Your task to perform on an android device: turn off location history Image 0: 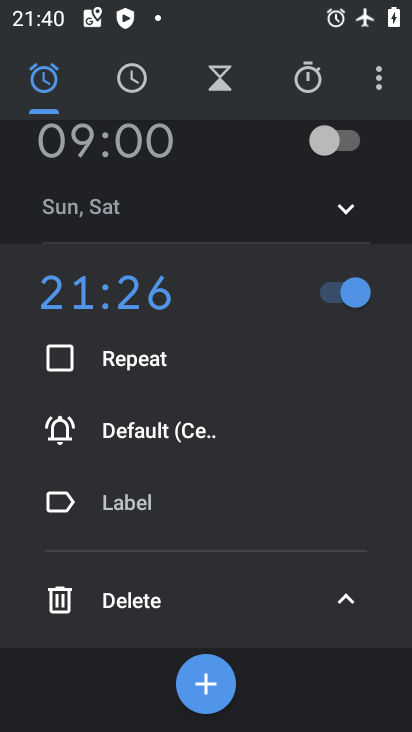
Step 0: press home button
Your task to perform on an android device: turn off location history Image 1: 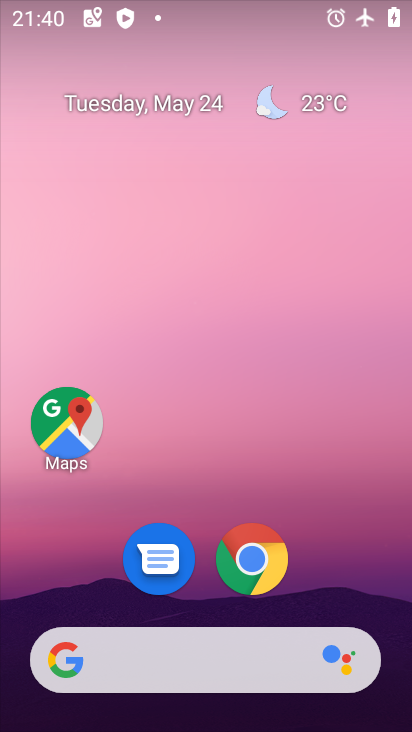
Step 1: drag from (345, 537) to (211, 160)
Your task to perform on an android device: turn off location history Image 2: 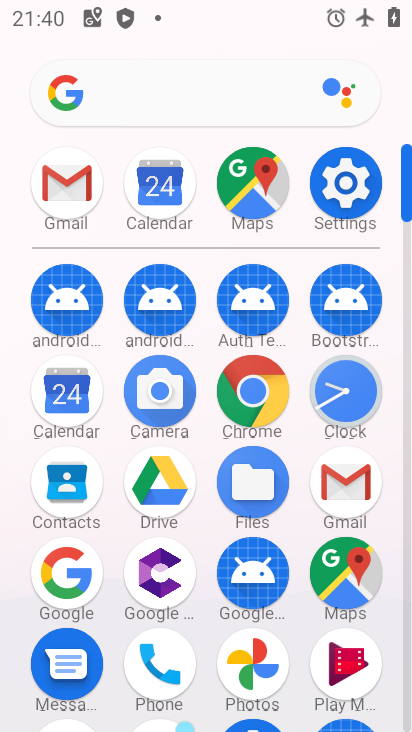
Step 2: click (338, 187)
Your task to perform on an android device: turn off location history Image 3: 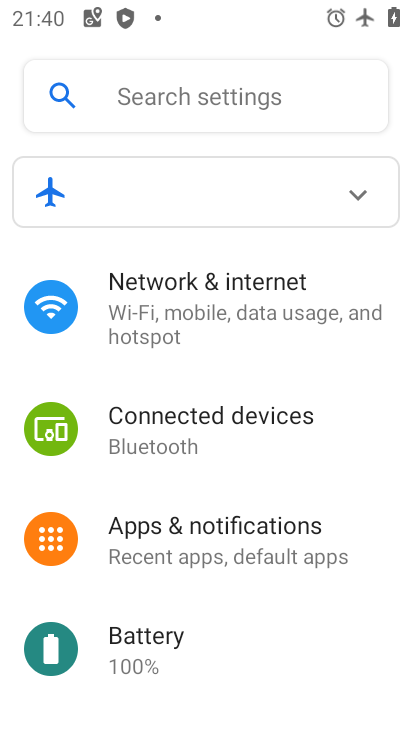
Step 3: drag from (266, 507) to (294, 127)
Your task to perform on an android device: turn off location history Image 4: 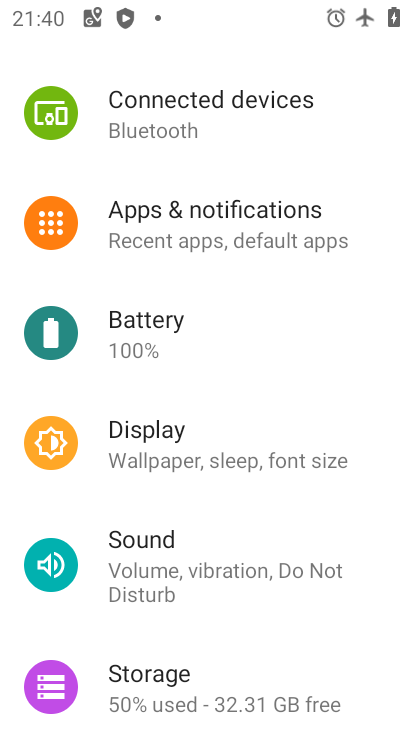
Step 4: drag from (234, 624) to (285, 233)
Your task to perform on an android device: turn off location history Image 5: 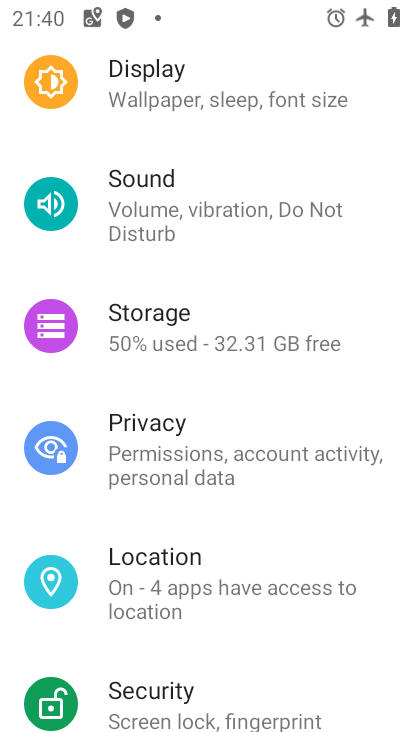
Step 5: drag from (212, 603) to (266, 362)
Your task to perform on an android device: turn off location history Image 6: 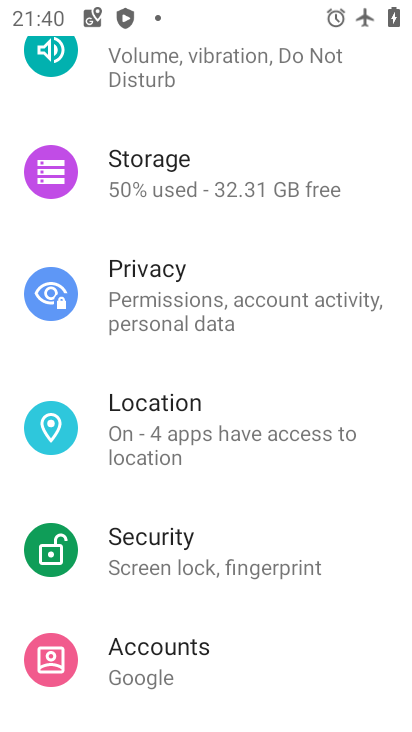
Step 6: click (189, 435)
Your task to perform on an android device: turn off location history Image 7: 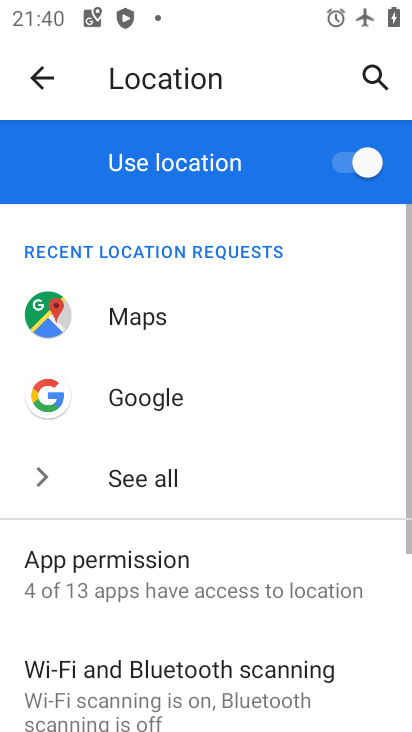
Step 7: drag from (288, 562) to (356, 165)
Your task to perform on an android device: turn off location history Image 8: 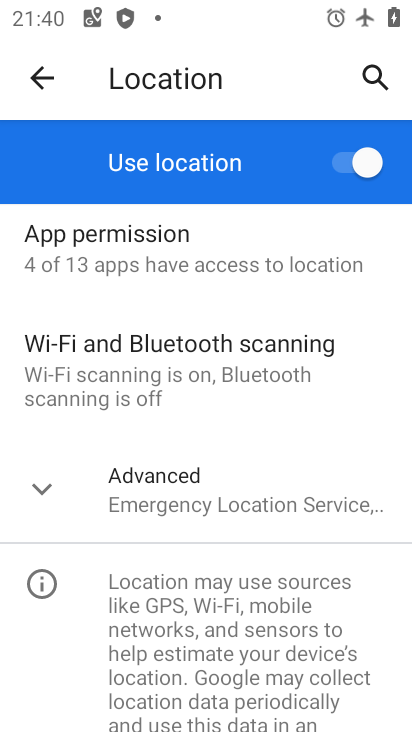
Step 8: click (246, 522)
Your task to perform on an android device: turn off location history Image 9: 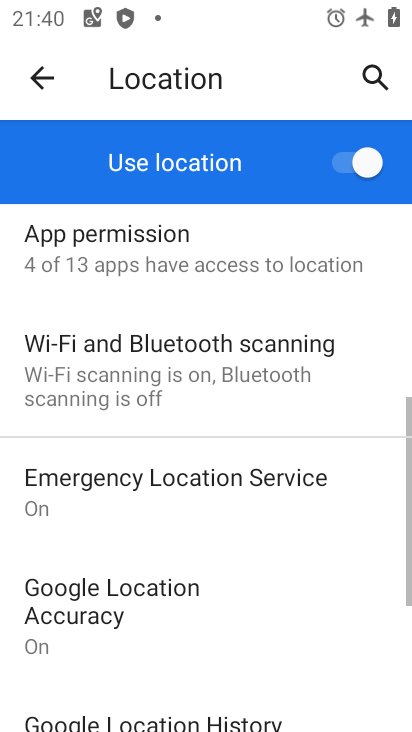
Step 9: drag from (305, 641) to (336, 329)
Your task to perform on an android device: turn off location history Image 10: 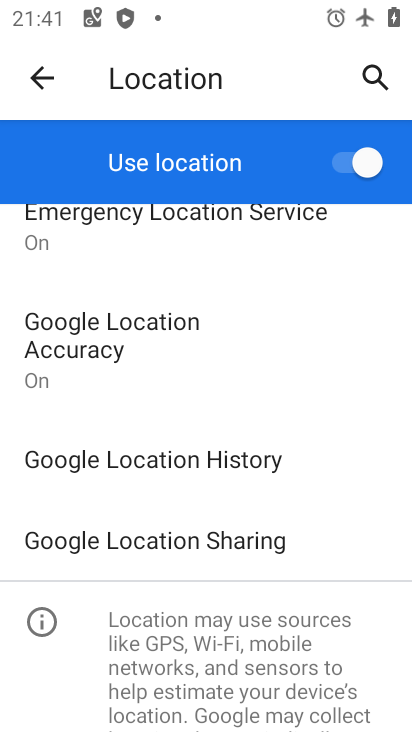
Step 10: click (185, 473)
Your task to perform on an android device: turn off location history Image 11: 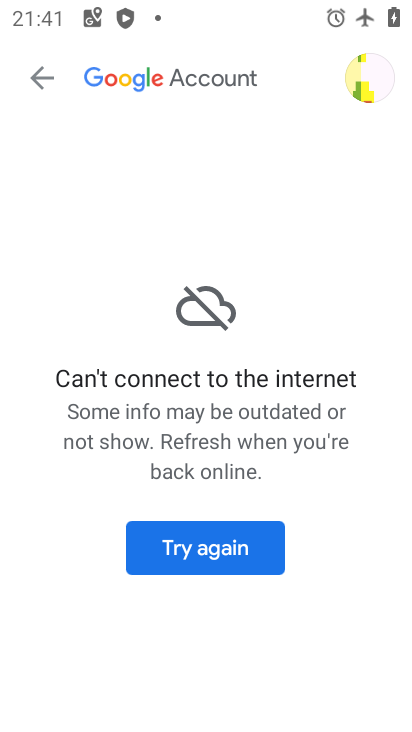
Step 11: task complete